Your task to perform on an android device: Go to battery settings Image 0: 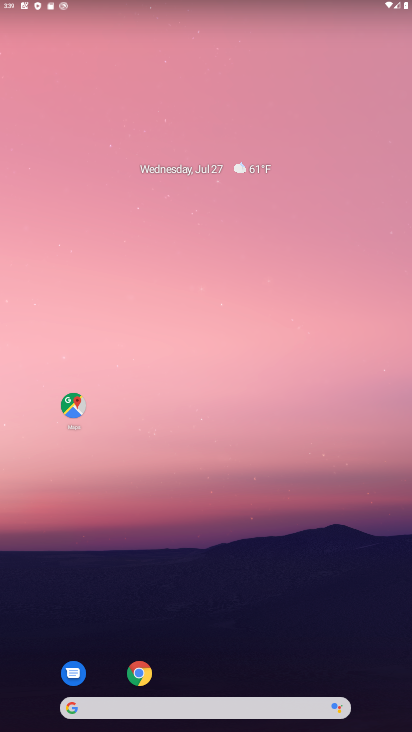
Step 0: drag from (263, 613) to (132, 13)
Your task to perform on an android device: Go to battery settings Image 1: 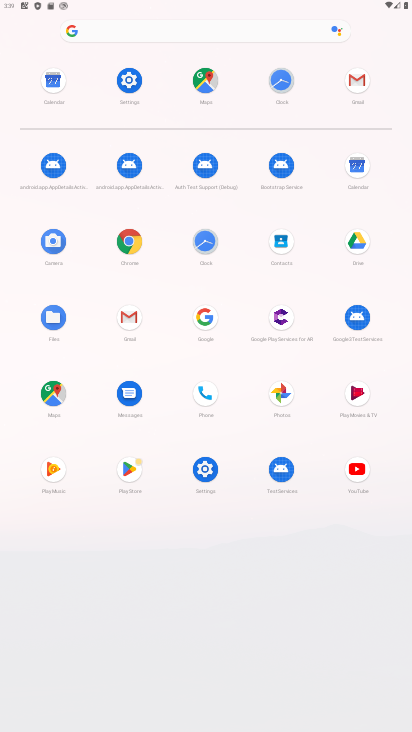
Step 1: click (213, 470)
Your task to perform on an android device: Go to battery settings Image 2: 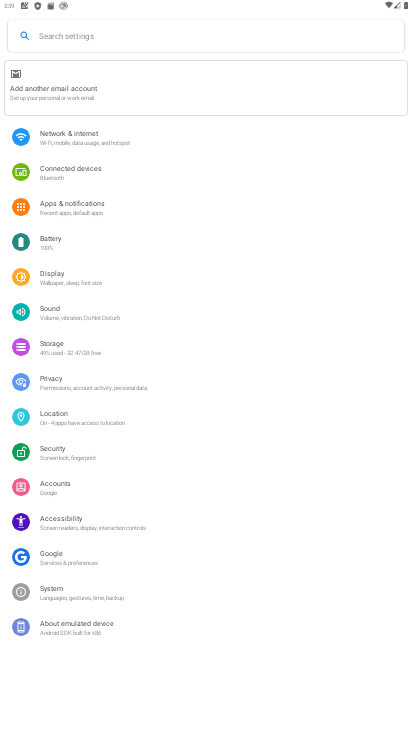
Step 2: click (76, 240)
Your task to perform on an android device: Go to battery settings Image 3: 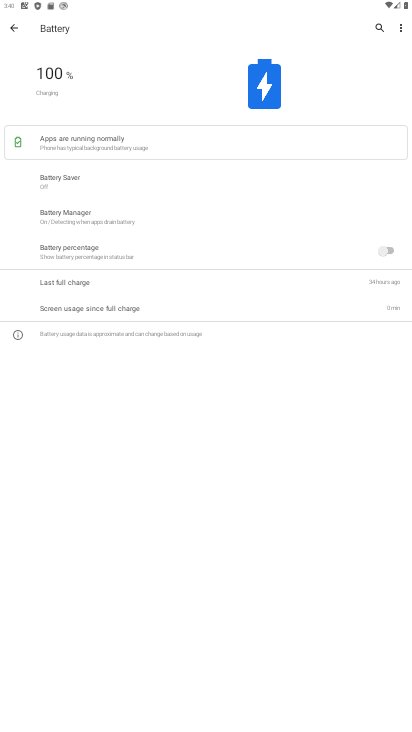
Step 3: task complete